Your task to perform on an android device: turn vacation reply on in the gmail app Image 0: 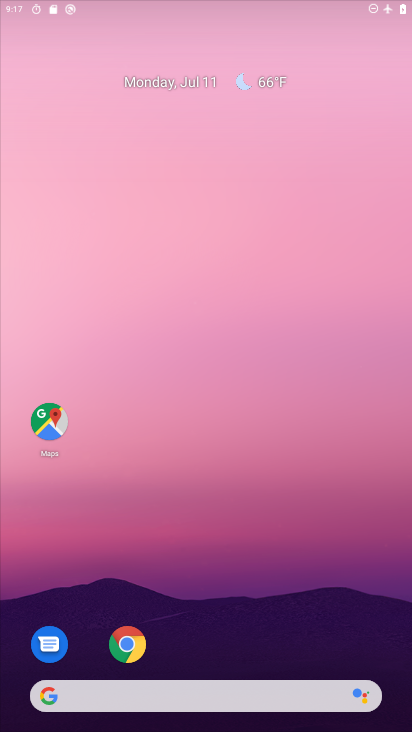
Step 0: drag from (328, 542) to (288, 75)
Your task to perform on an android device: turn vacation reply on in the gmail app Image 1: 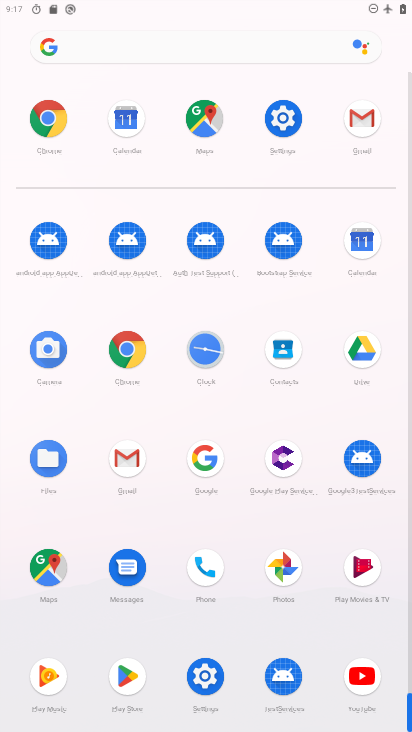
Step 1: click (350, 114)
Your task to perform on an android device: turn vacation reply on in the gmail app Image 2: 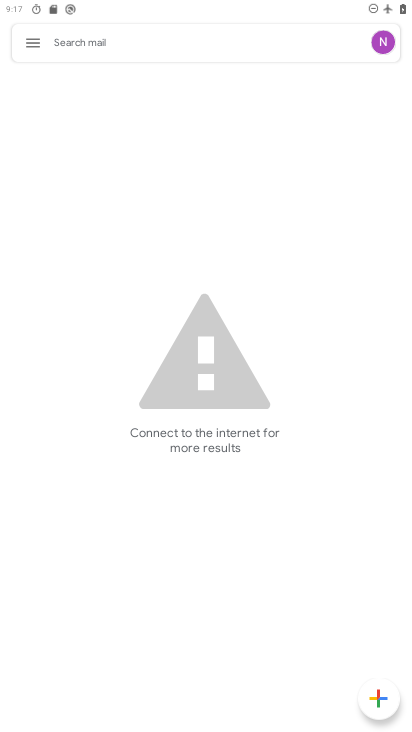
Step 2: click (24, 36)
Your task to perform on an android device: turn vacation reply on in the gmail app Image 3: 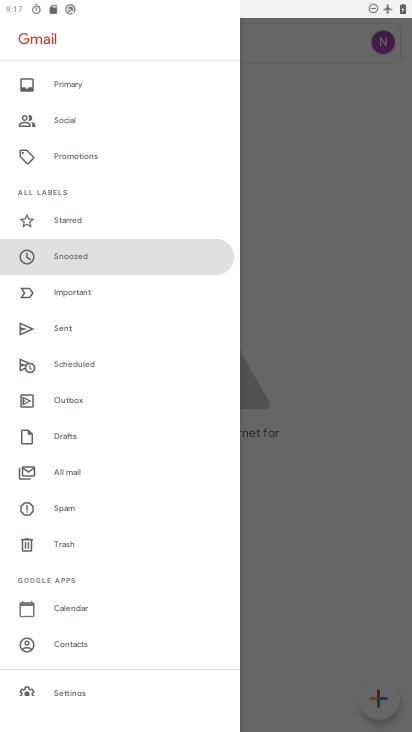
Step 3: click (80, 691)
Your task to perform on an android device: turn vacation reply on in the gmail app Image 4: 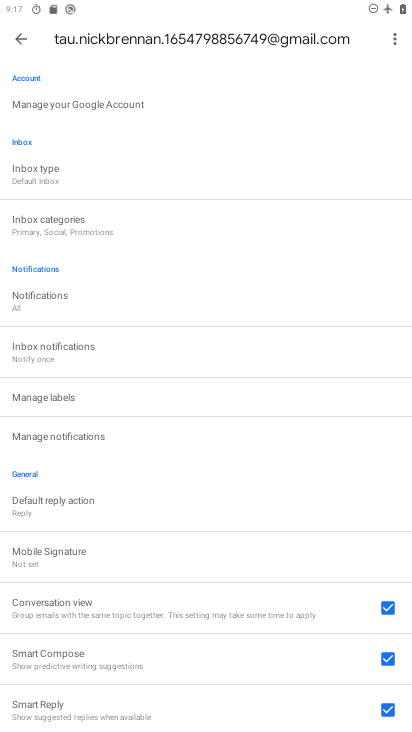
Step 4: drag from (185, 662) to (200, 289)
Your task to perform on an android device: turn vacation reply on in the gmail app Image 5: 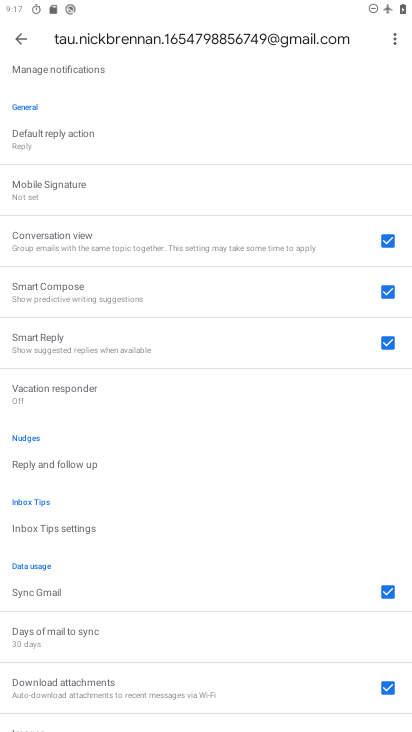
Step 5: click (99, 392)
Your task to perform on an android device: turn vacation reply on in the gmail app Image 6: 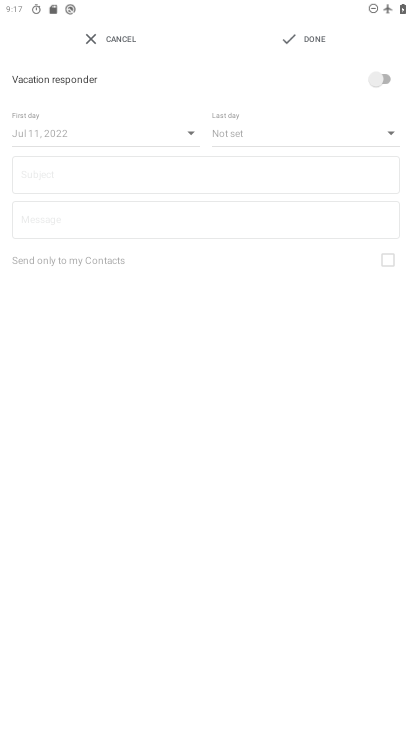
Step 6: click (395, 78)
Your task to perform on an android device: turn vacation reply on in the gmail app Image 7: 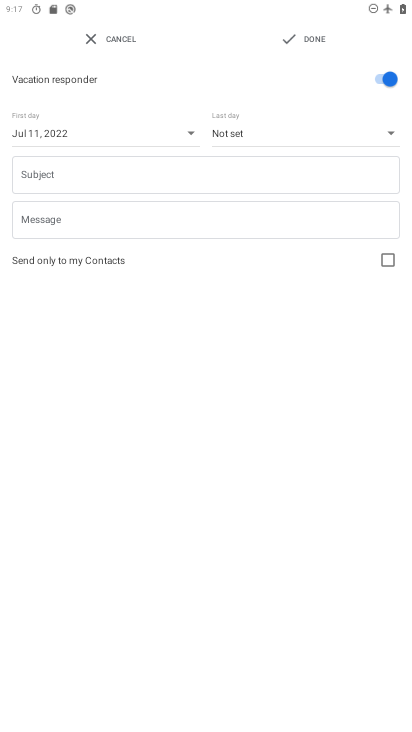
Step 7: task complete